Your task to perform on an android device: add a contact in the contacts app Image 0: 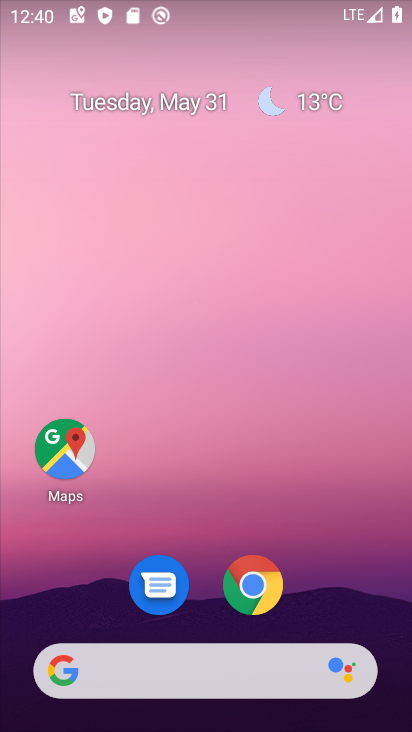
Step 0: drag from (230, 510) to (190, 0)
Your task to perform on an android device: add a contact in the contacts app Image 1: 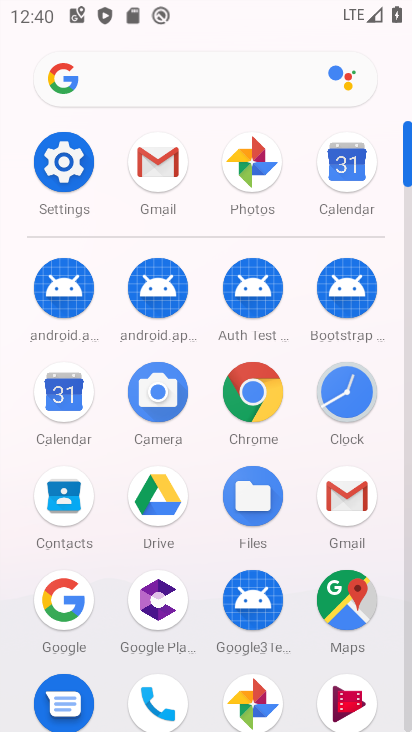
Step 1: click (64, 489)
Your task to perform on an android device: add a contact in the contacts app Image 2: 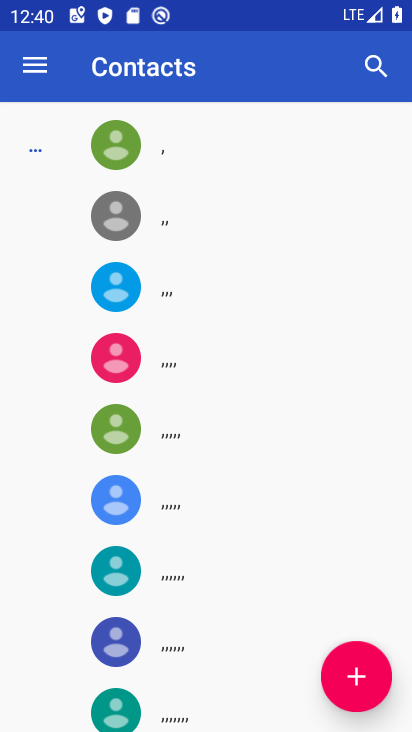
Step 2: click (364, 675)
Your task to perform on an android device: add a contact in the contacts app Image 3: 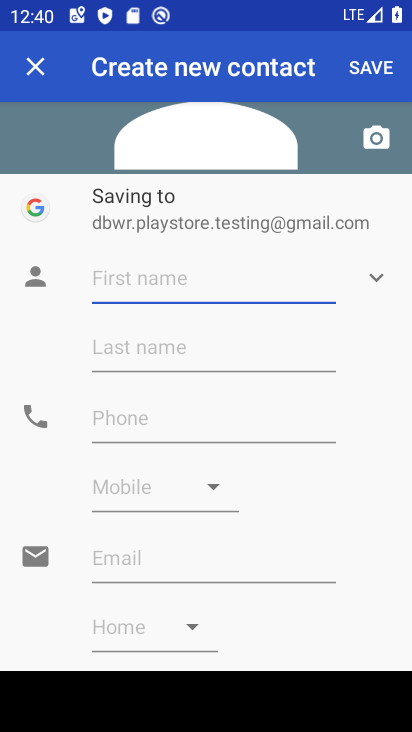
Step 3: type "Pradyumn Datt Dwivedi"
Your task to perform on an android device: add a contact in the contacts app Image 4: 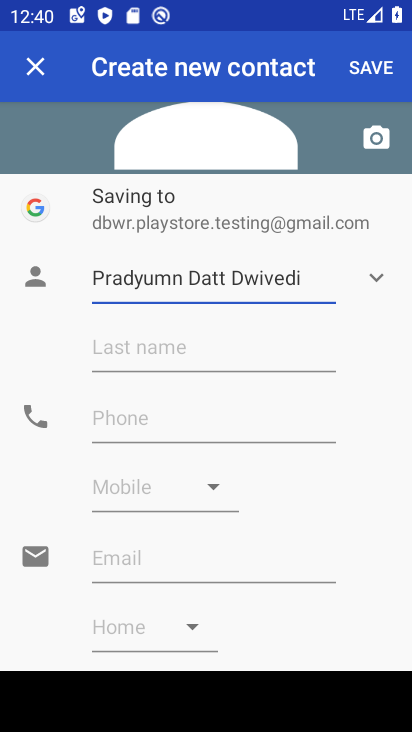
Step 4: click (242, 424)
Your task to perform on an android device: add a contact in the contacts app Image 5: 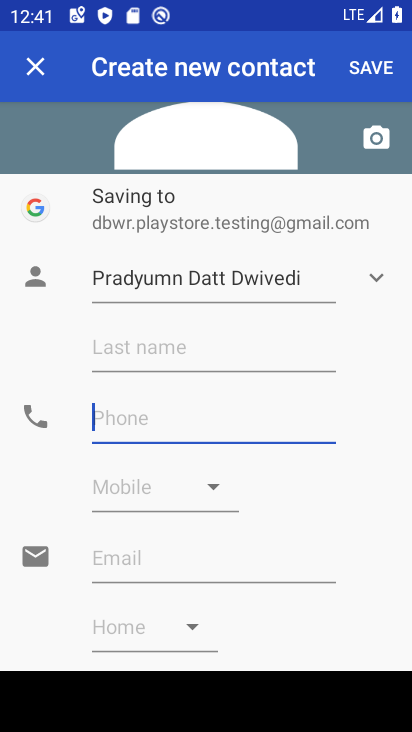
Step 5: type "919999775533"
Your task to perform on an android device: add a contact in the contacts app Image 6: 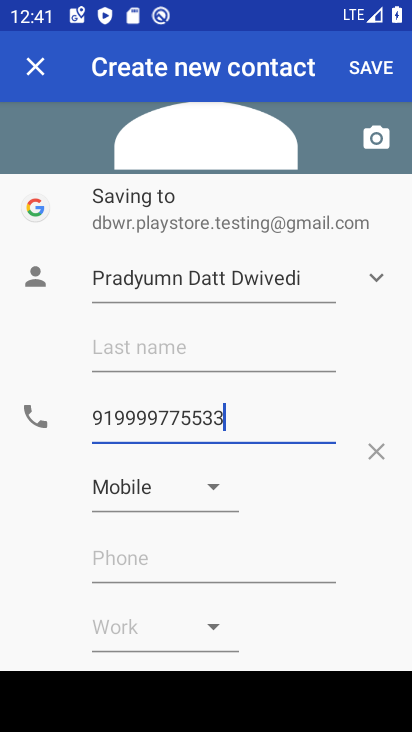
Step 6: click (366, 69)
Your task to perform on an android device: add a contact in the contacts app Image 7: 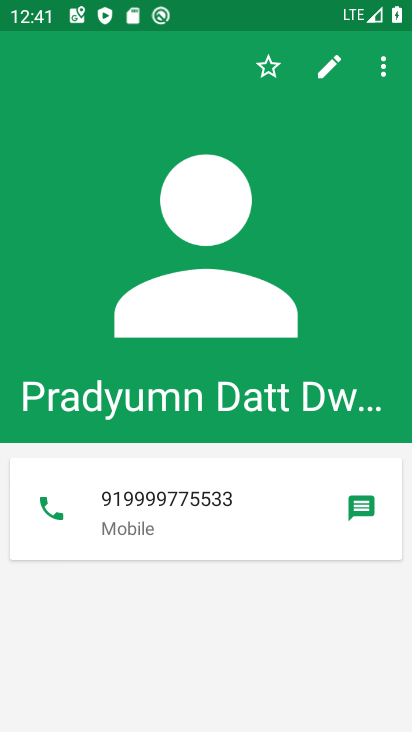
Step 7: task complete